Your task to perform on an android device: Check the settings for the Pandora app Image 0: 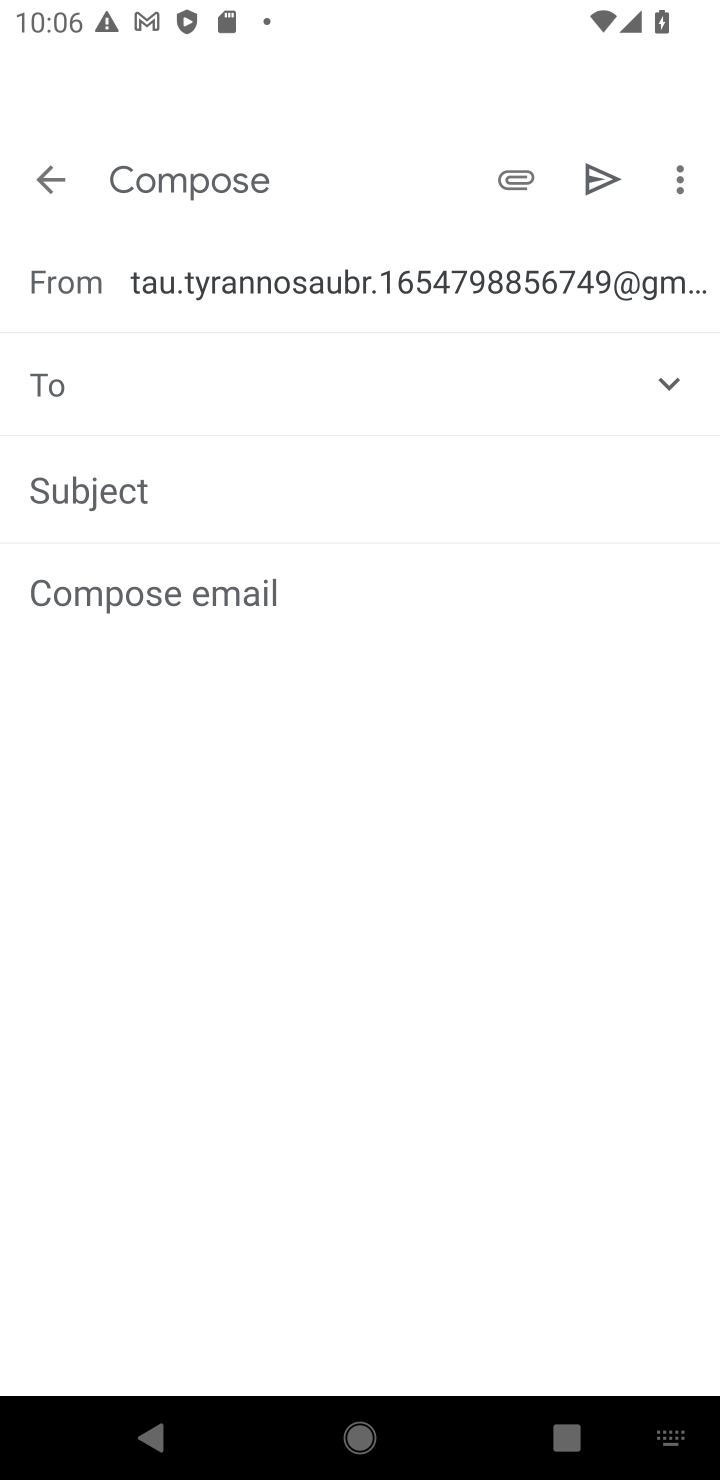
Step 0: press home button
Your task to perform on an android device: Check the settings for the Pandora app Image 1: 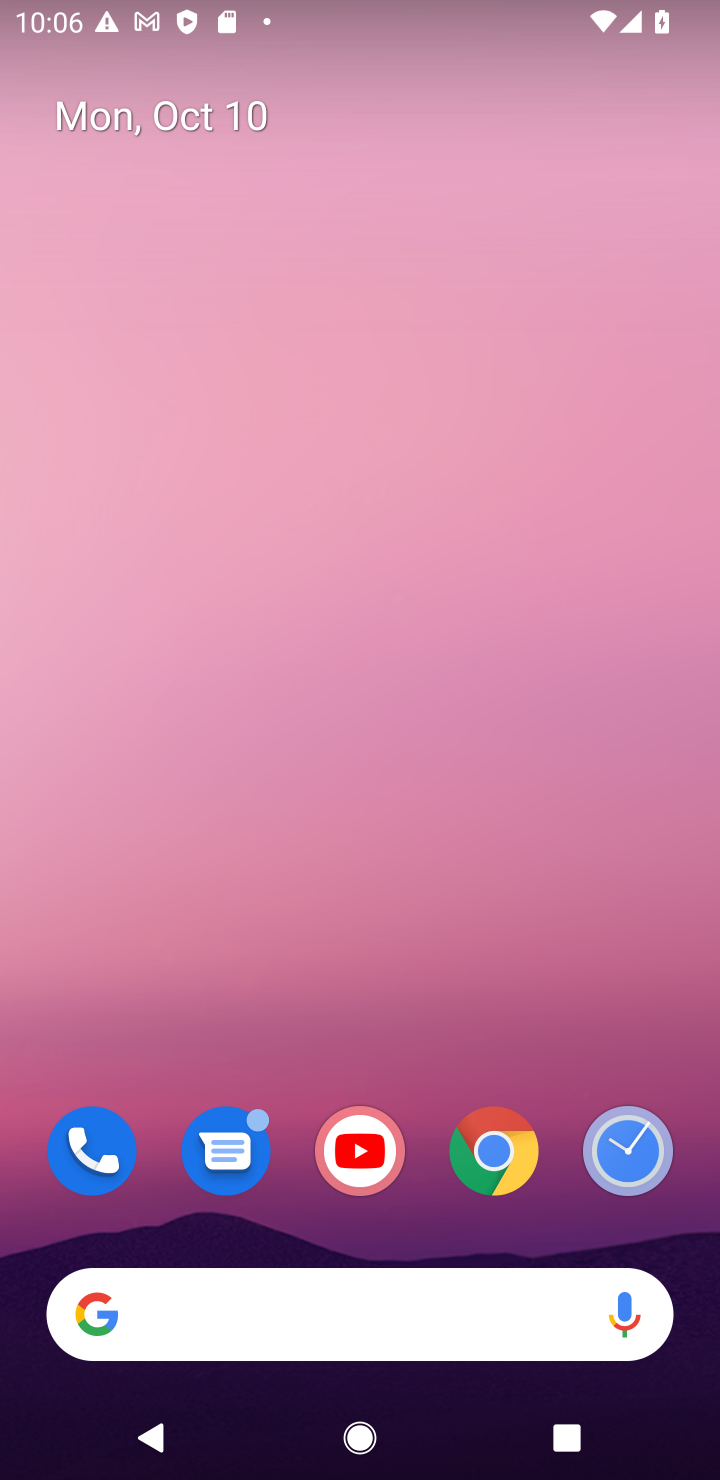
Step 1: drag from (401, 1248) to (484, 60)
Your task to perform on an android device: Check the settings for the Pandora app Image 2: 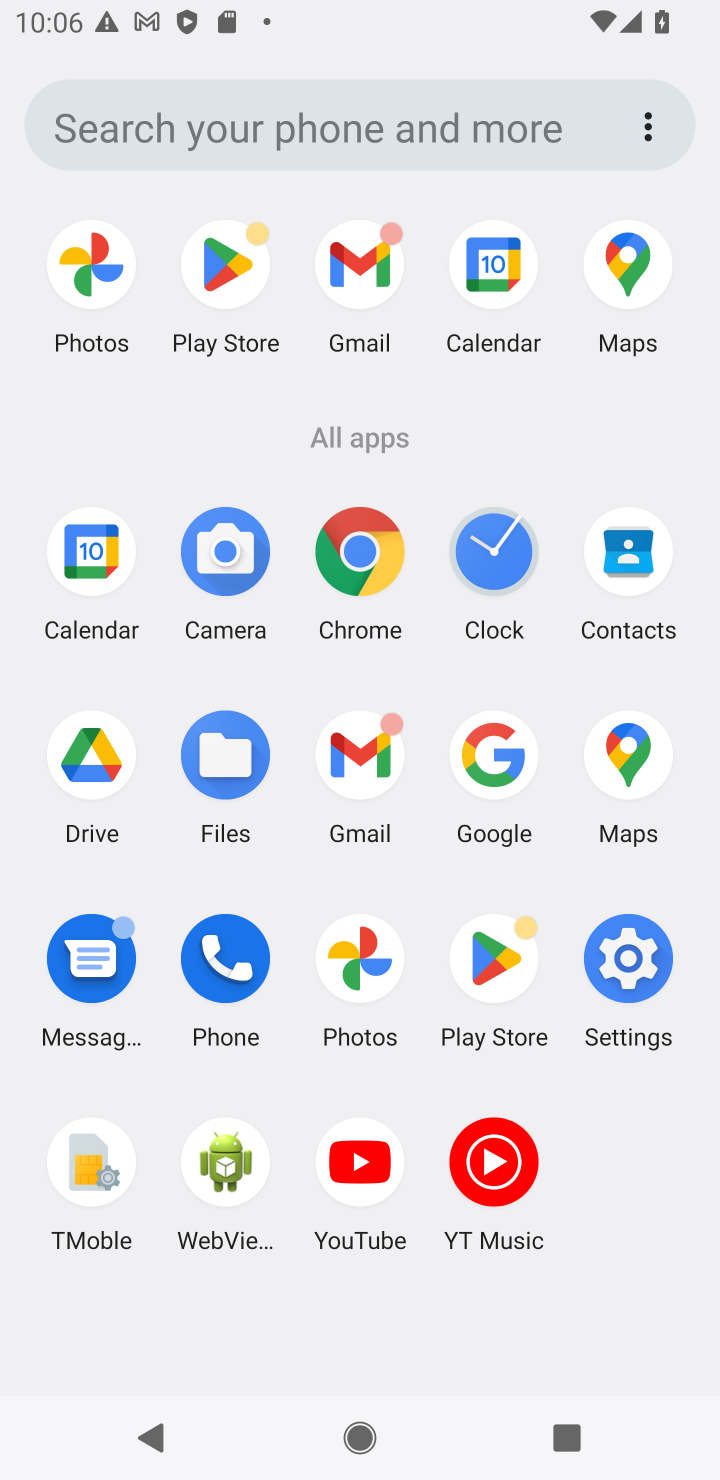
Step 2: click (500, 974)
Your task to perform on an android device: Check the settings for the Pandora app Image 3: 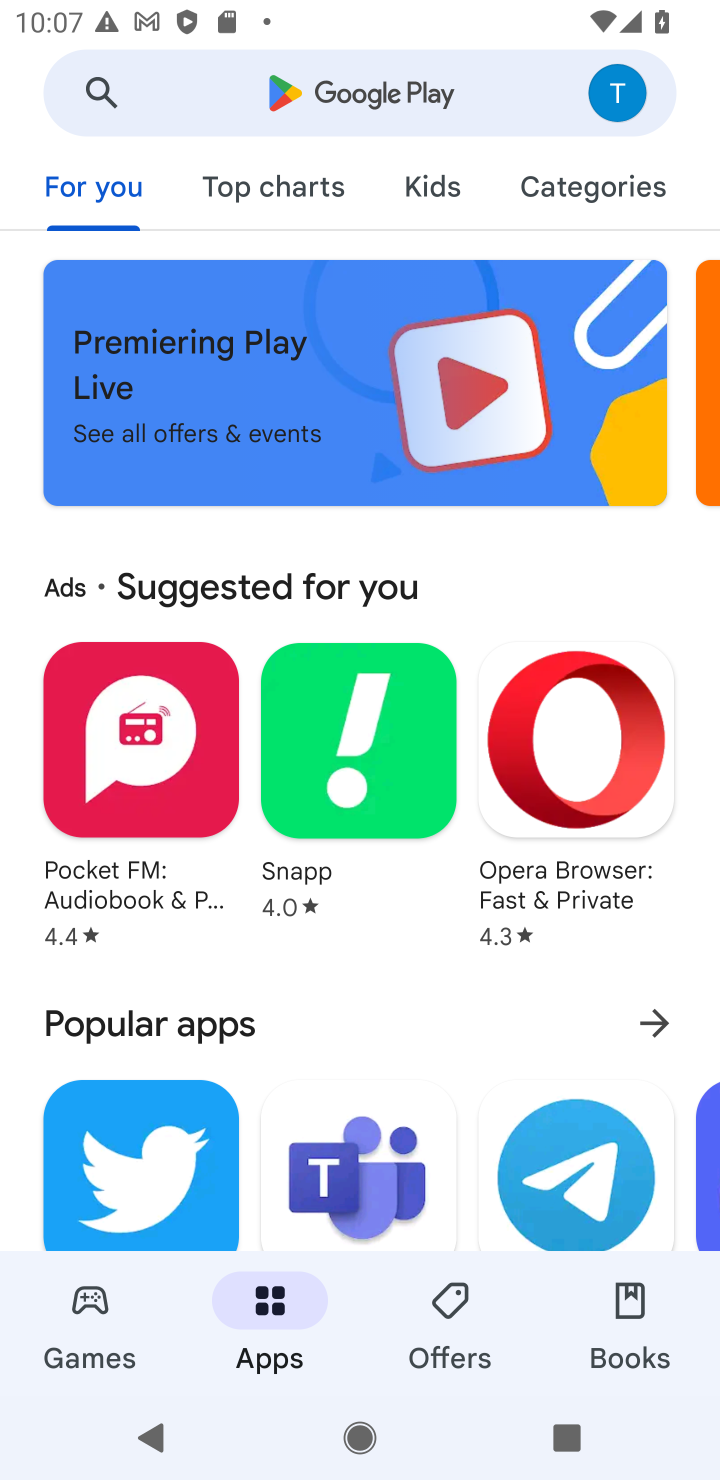
Step 3: click (359, 115)
Your task to perform on an android device: Check the settings for the Pandora app Image 4: 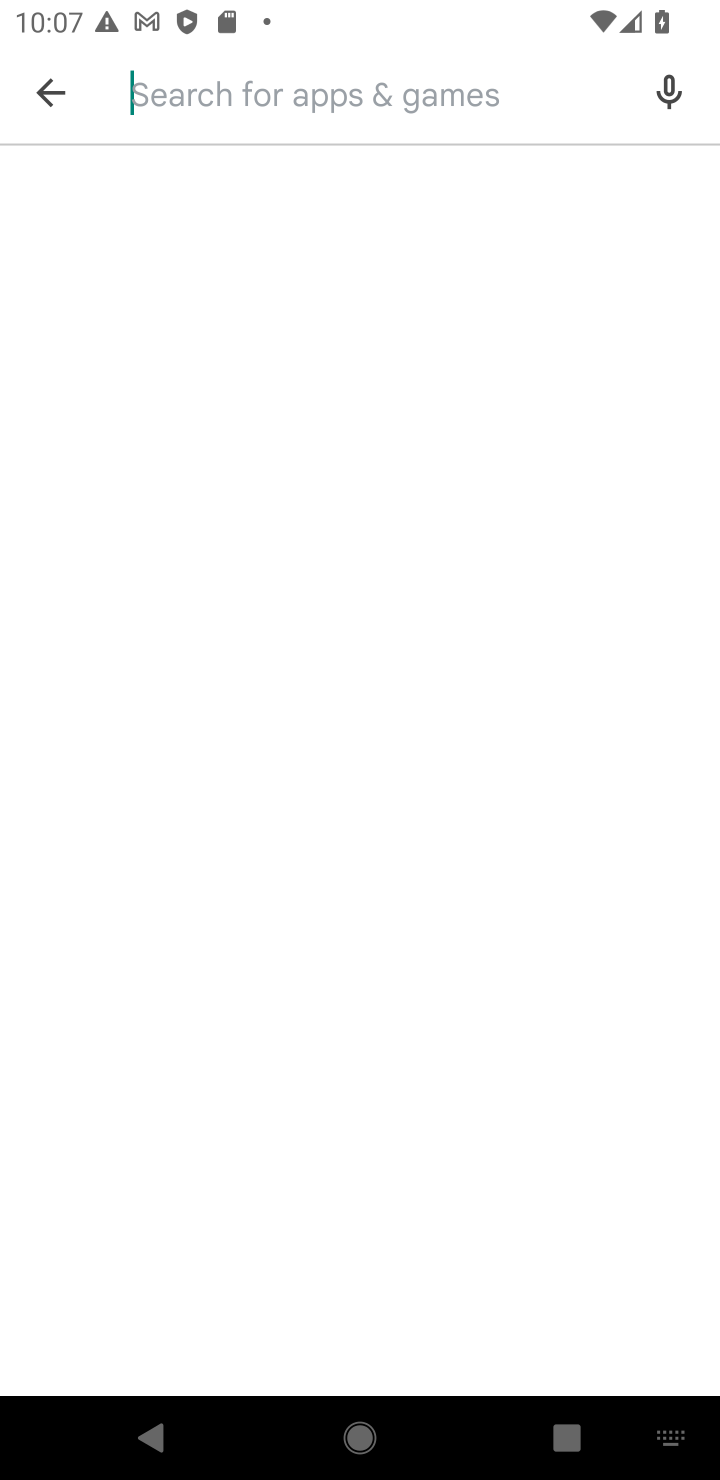
Step 4: type " Pandora app"
Your task to perform on an android device: Check the settings for the Pandora app Image 5: 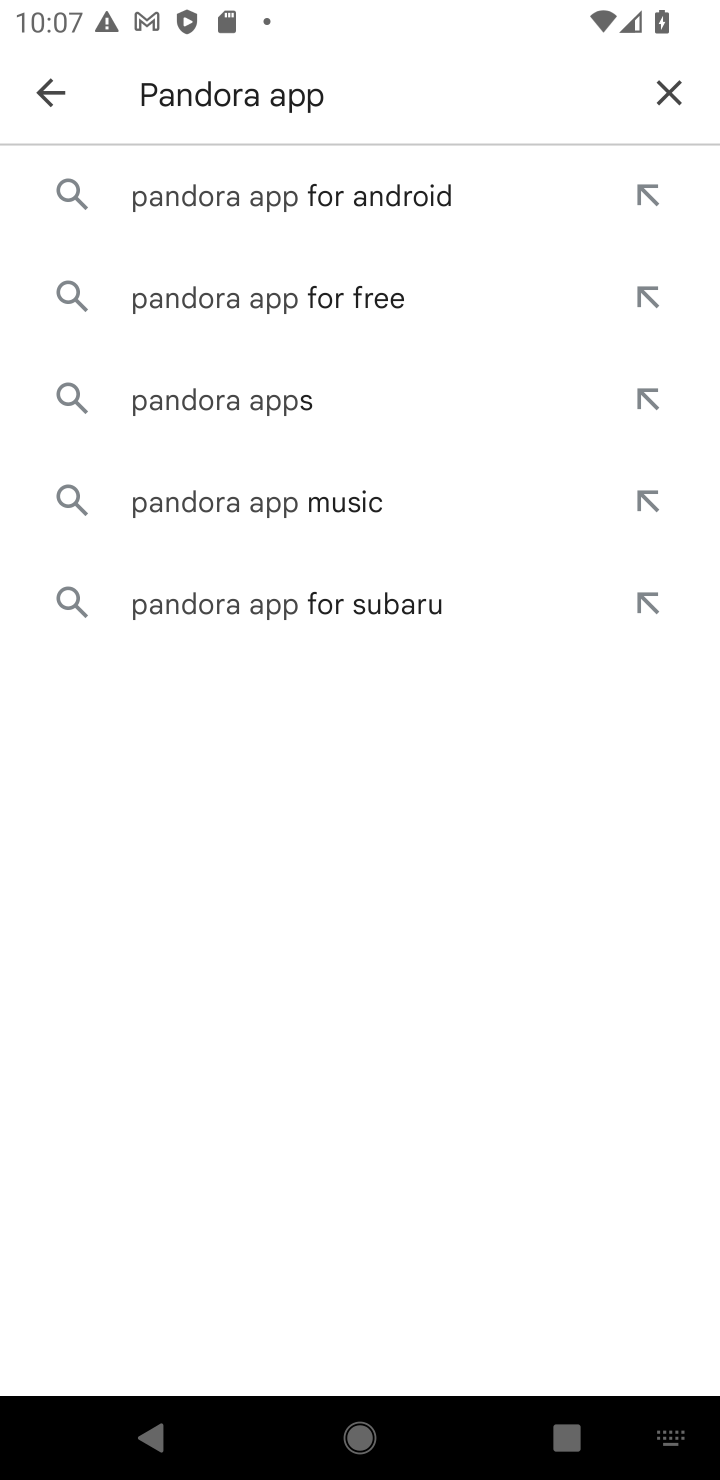
Step 5: click (399, 210)
Your task to perform on an android device: Check the settings for the Pandora app Image 6: 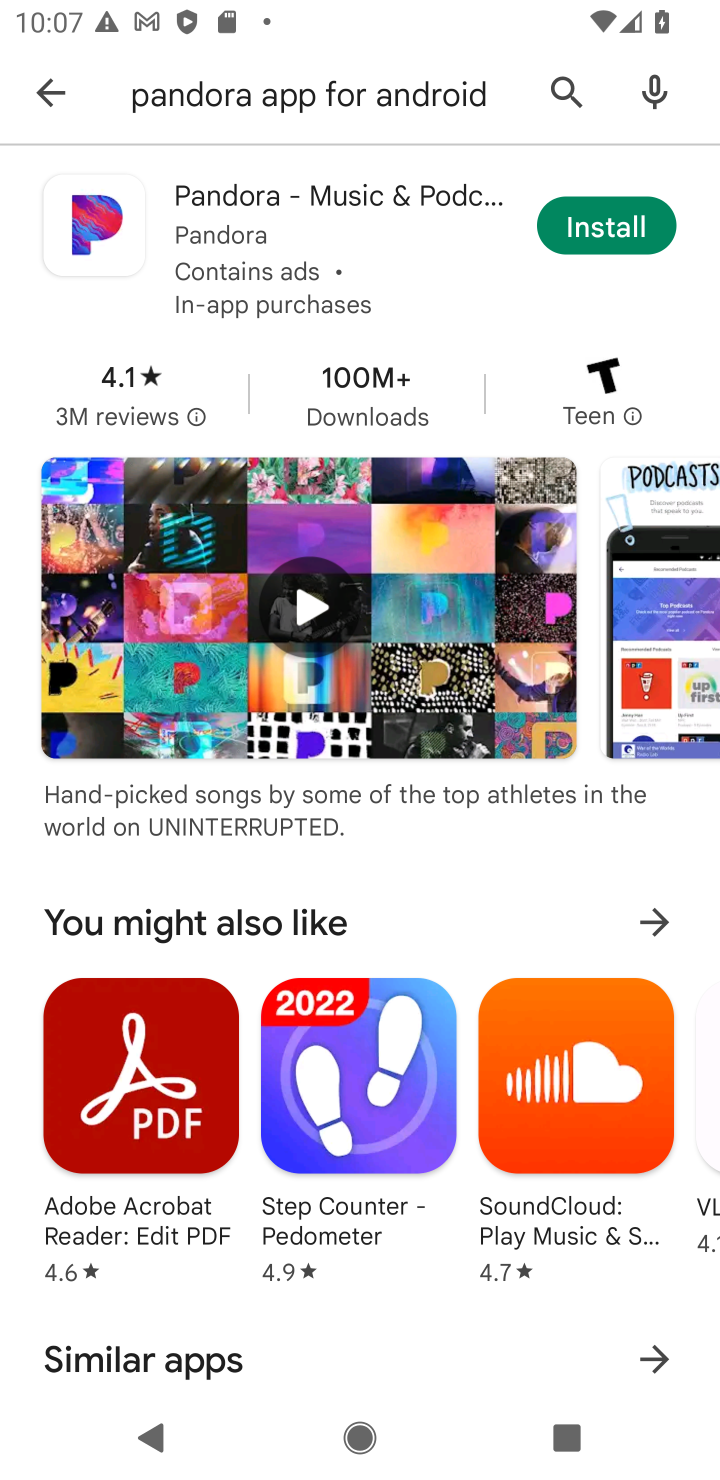
Step 6: click (600, 231)
Your task to perform on an android device: Check the settings for the Pandora app Image 7: 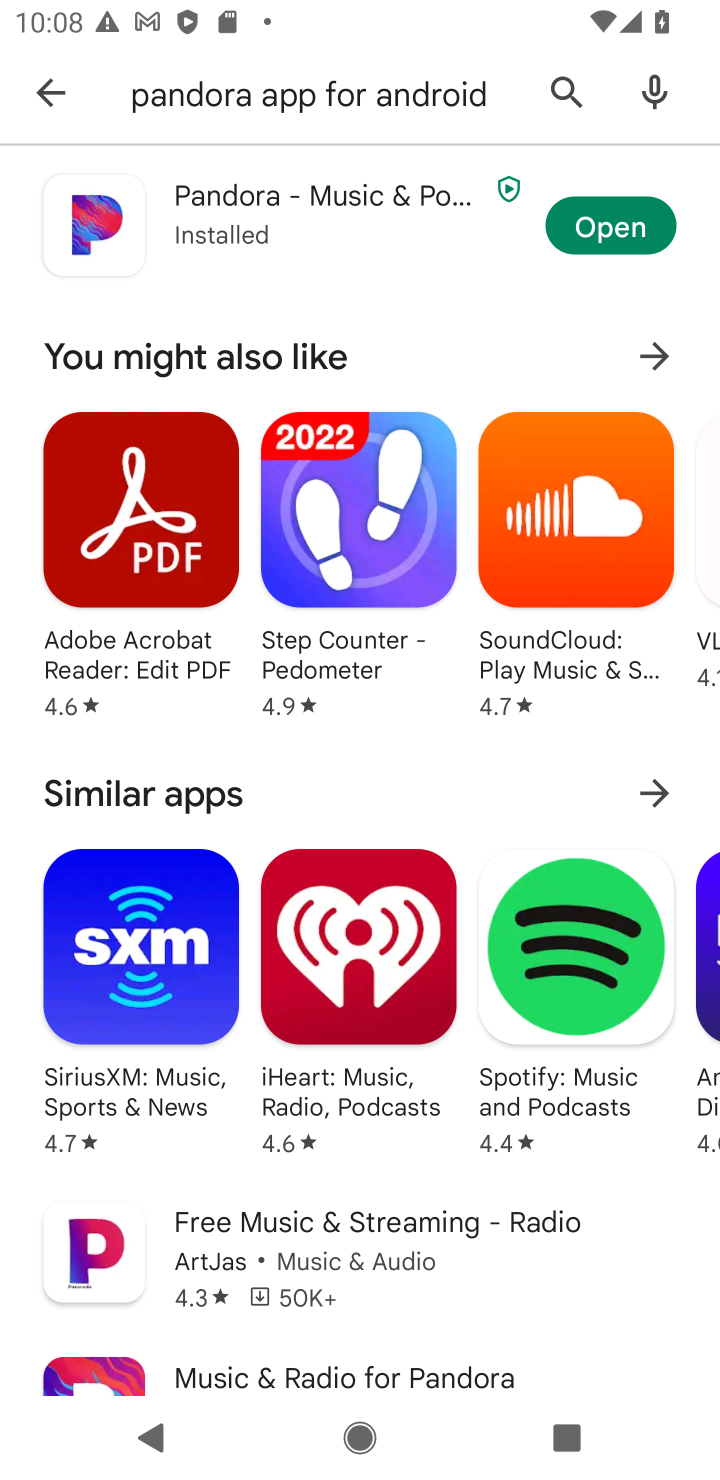
Step 7: click (665, 245)
Your task to perform on an android device: Check the settings for the Pandora app Image 8: 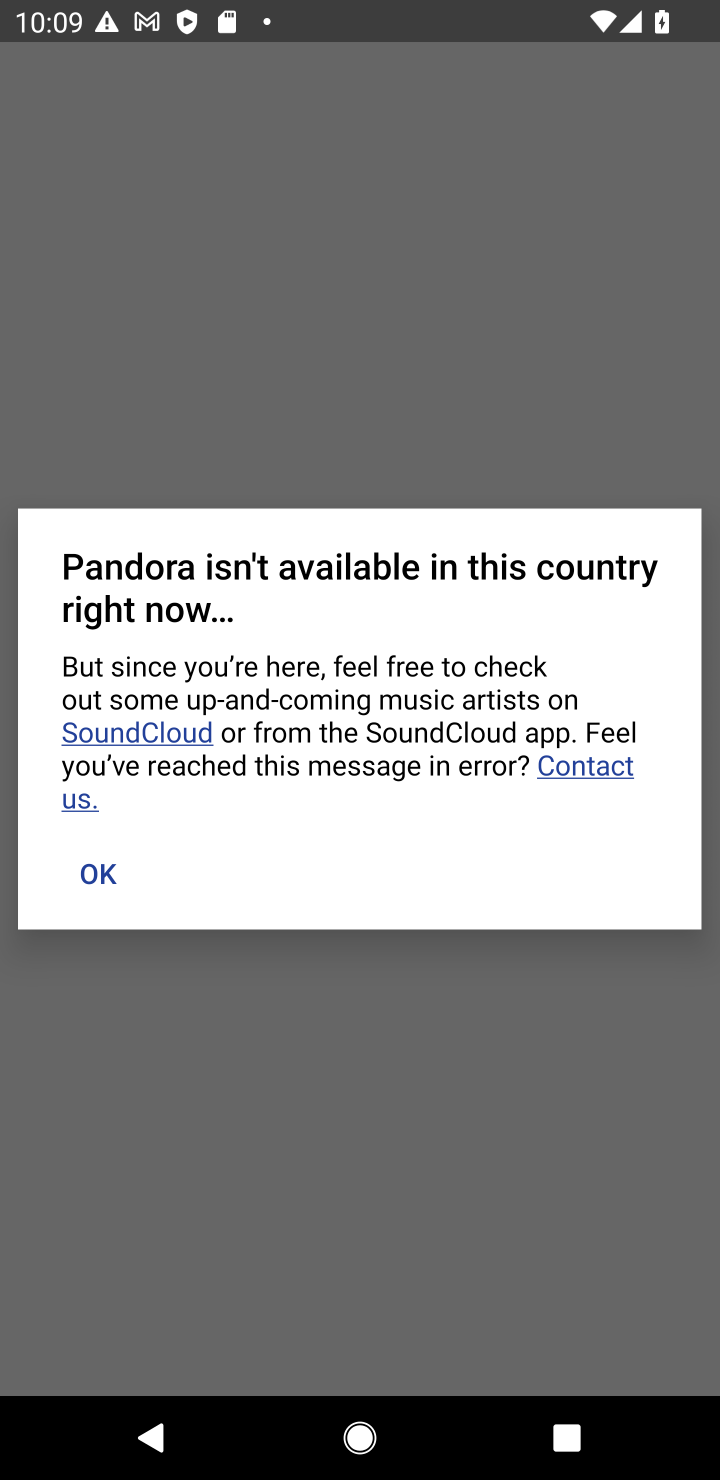
Step 8: task complete